Your task to perform on an android device: Search for sushi restaurants on Maps Image 0: 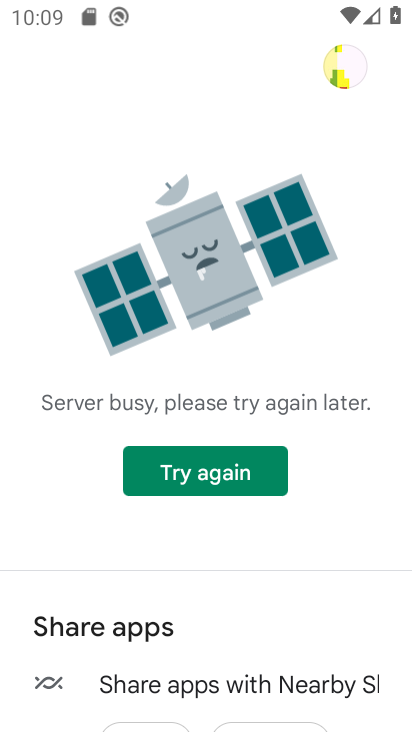
Step 0: press home button
Your task to perform on an android device: Search for sushi restaurants on Maps Image 1: 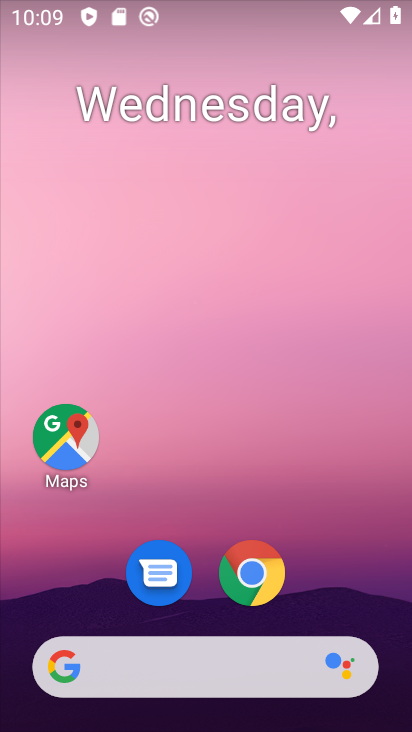
Step 1: click (57, 435)
Your task to perform on an android device: Search for sushi restaurants on Maps Image 2: 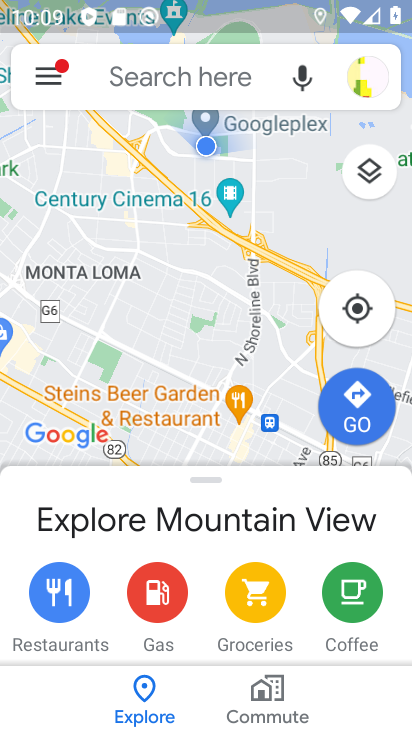
Step 2: click (187, 84)
Your task to perform on an android device: Search for sushi restaurants on Maps Image 3: 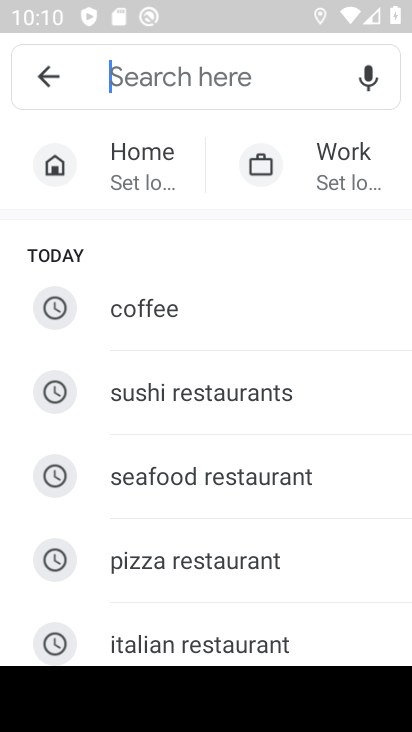
Step 3: type "sushi restaurants"
Your task to perform on an android device: Search for sushi restaurants on Maps Image 4: 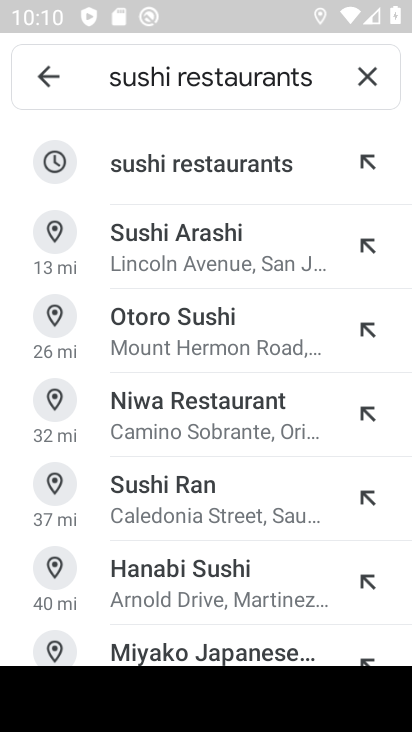
Step 4: click (246, 171)
Your task to perform on an android device: Search for sushi restaurants on Maps Image 5: 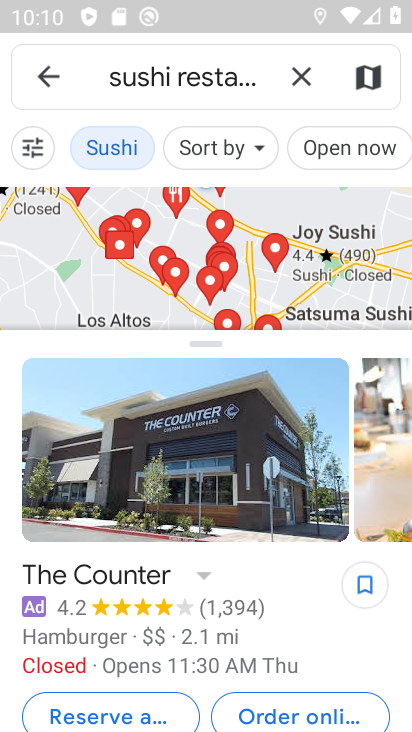
Step 5: task complete